Your task to perform on an android device: set default search engine in the chrome app Image 0: 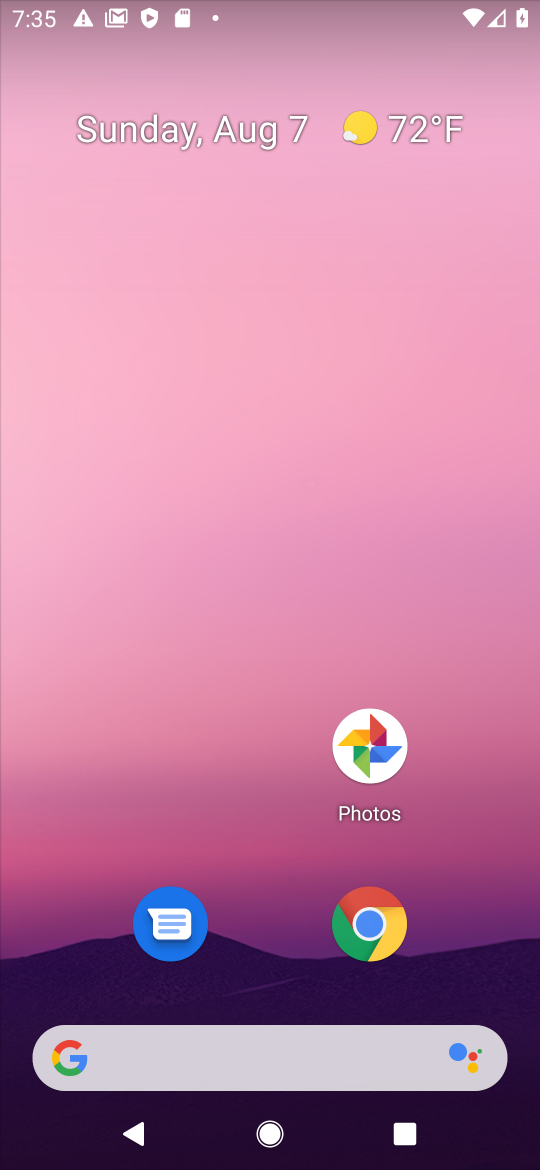
Step 0: drag from (335, 956) to (192, 197)
Your task to perform on an android device: set default search engine in the chrome app Image 1: 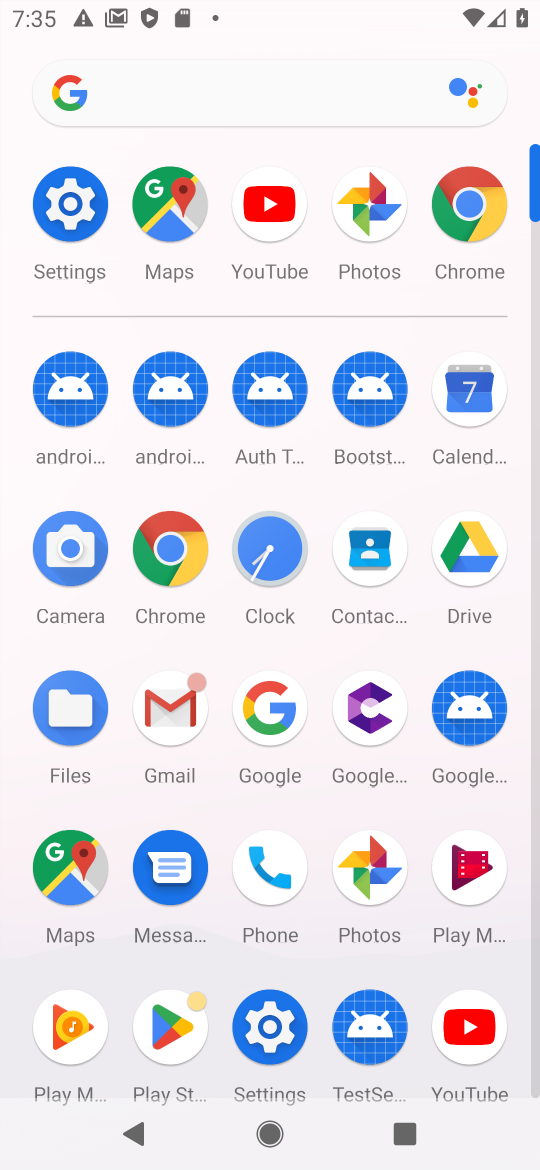
Step 1: click (160, 553)
Your task to perform on an android device: set default search engine in the chrome app Image 2: 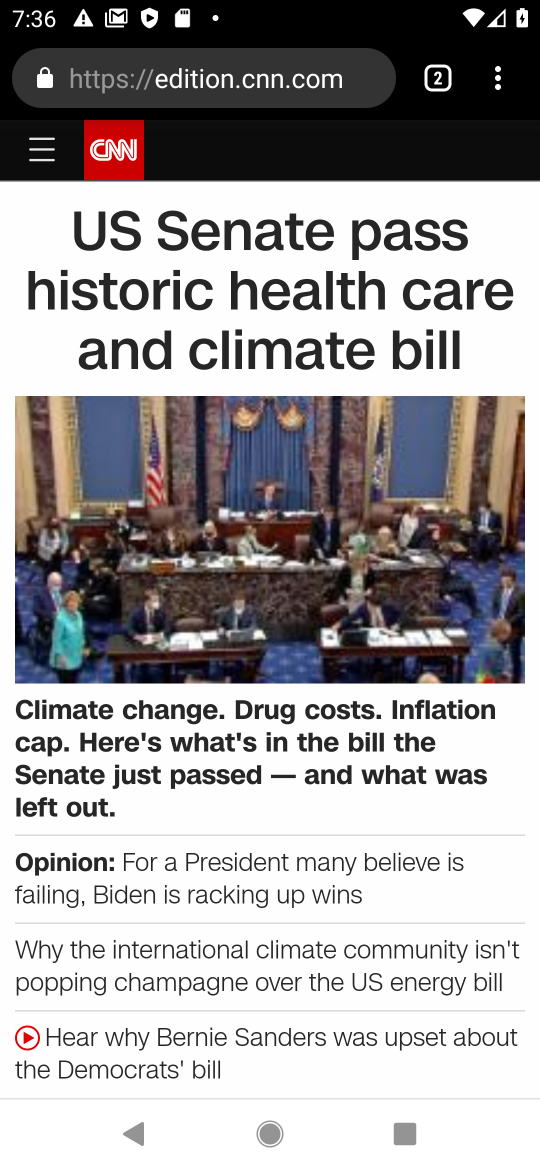
Step 2: click (500, 84)
Your task to perform on an android device: set default search engine in the chrome app Image 3: 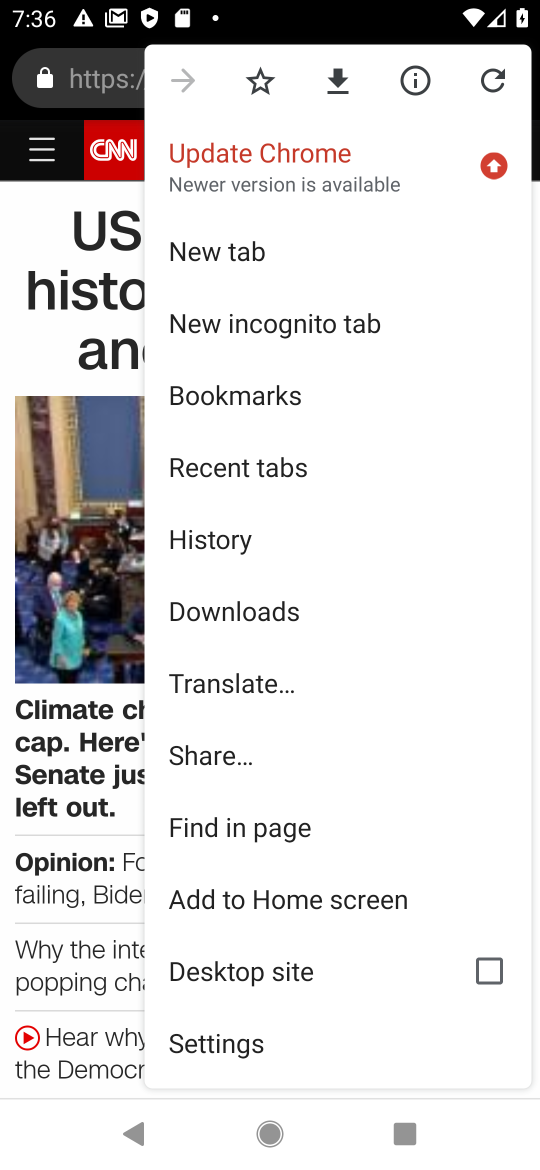
Step 3: click (241, 1037)
Your task to perform on an android device: set default search engine in the chrome app Image 4: 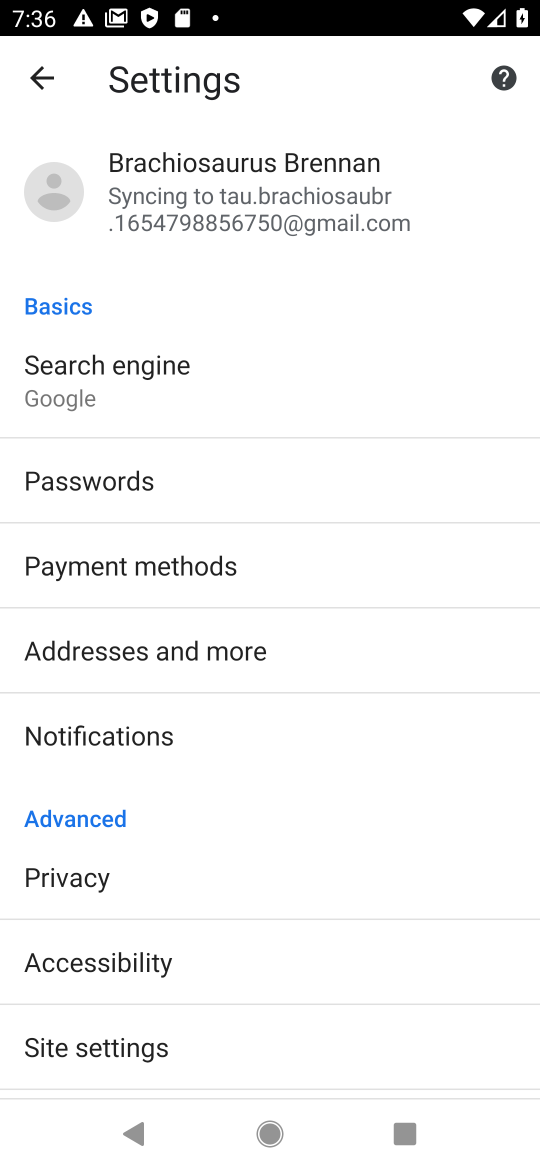
Step 4: click (156, 393)
Your task to perform on an android device: set default search engine in the chrome app Image 5: 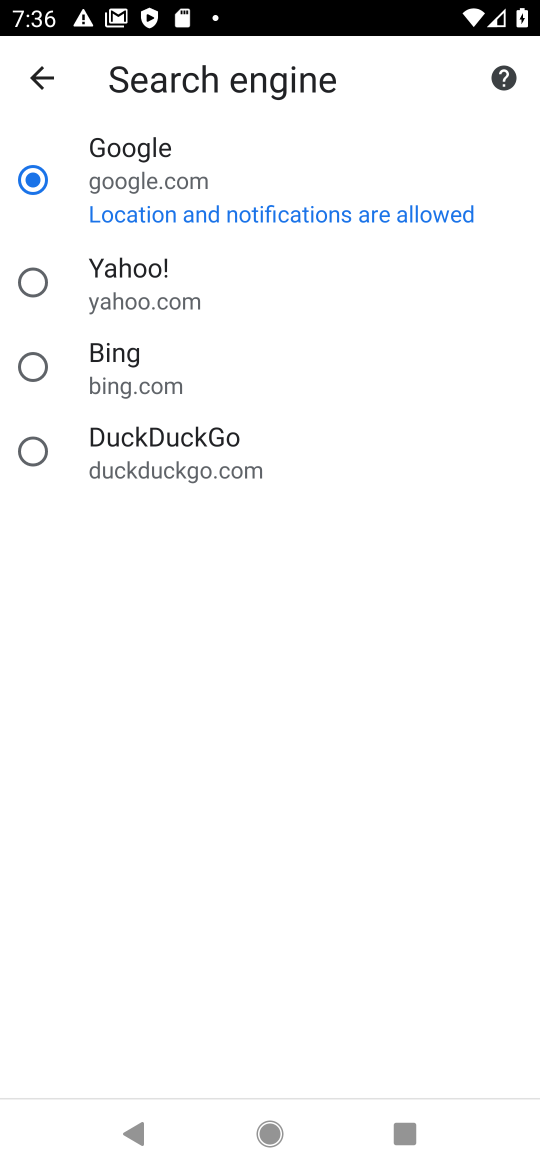
Step 5: task complete